Your task to perform on an android device: What's on my calendar tomorrow? Image 0: 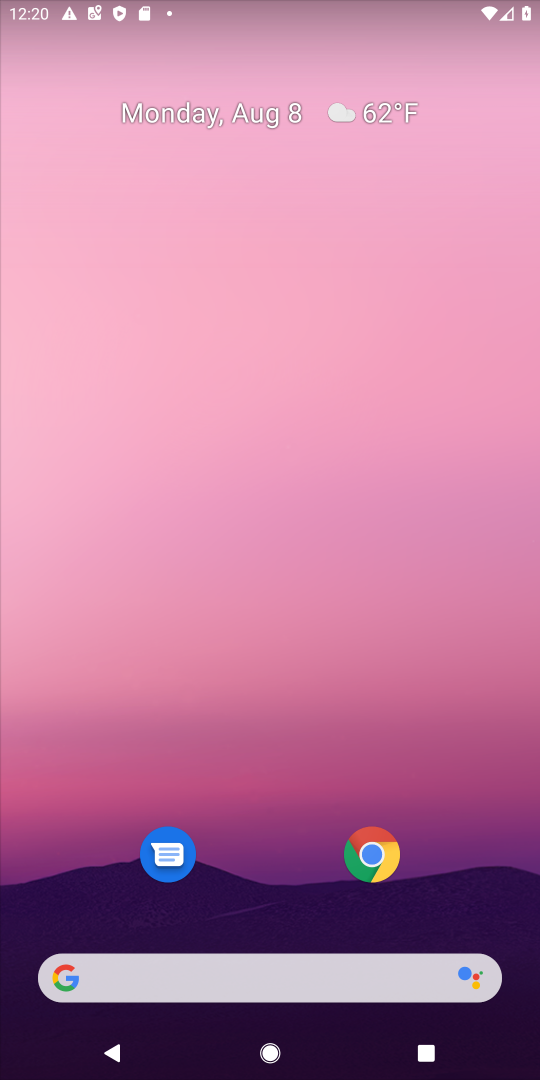
Step 0: drag from (291, 887) to (481, 32)
Your task to perform on an android device: What's on my calendar tomorrow? Image 1: 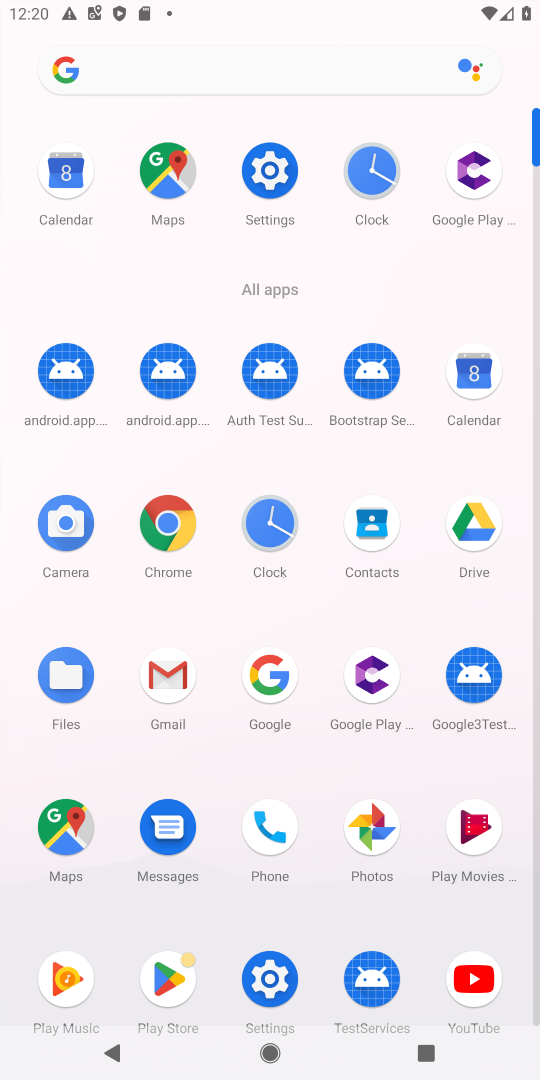
Step 1: click (469, 378)
Your task to perform on an android device: What's on my calendar tomorrow? Image 2: 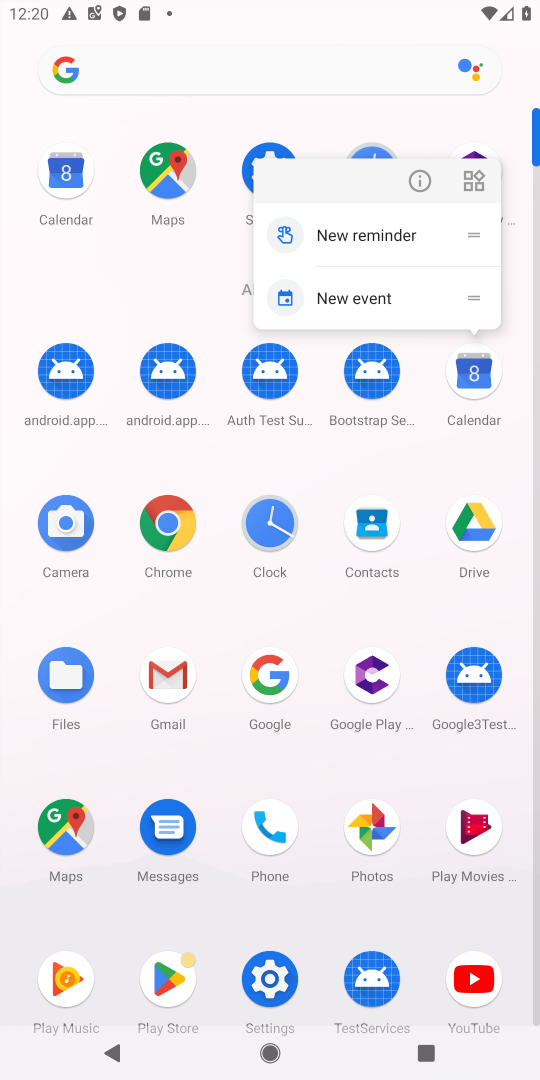
Step 2: click (469, 378)
Your task to perform on an android device: What's on my calendar tomorrow? Image 3: 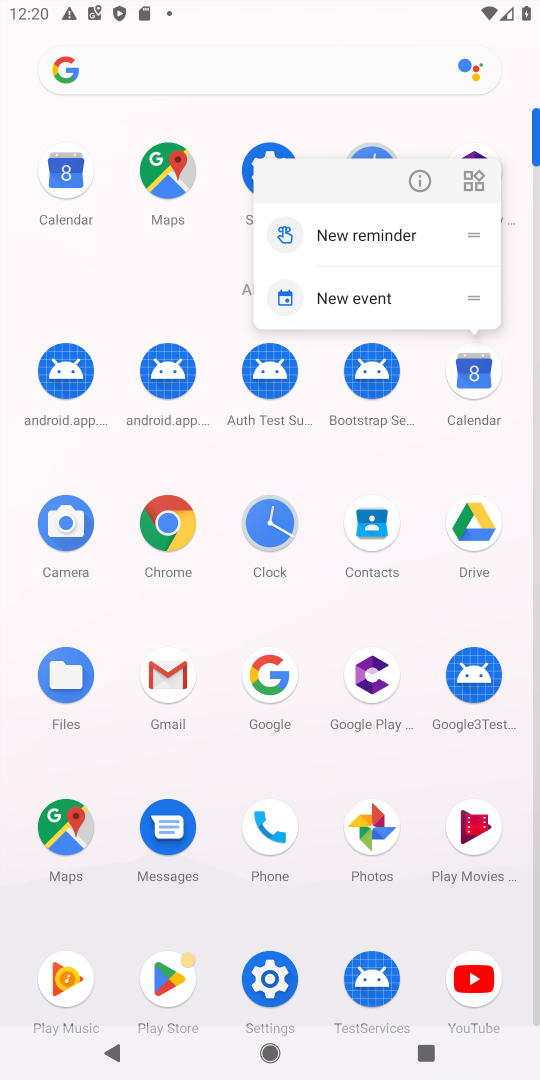
Step 3: click (482, 370)
Your task to perform on an android device: What's on my calendar tomorrow? Image 4: 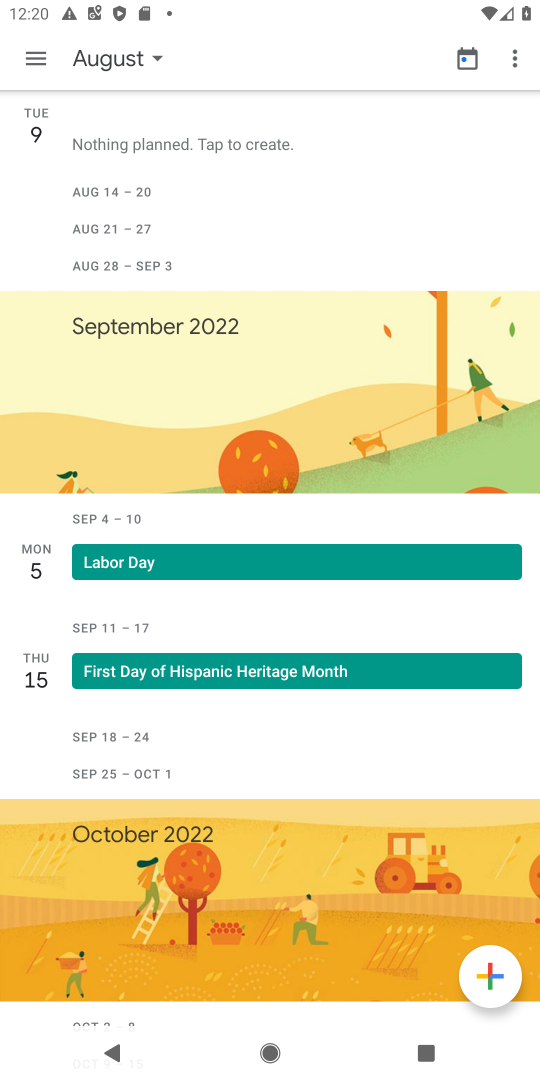
Step 4: click (138, 49)
Your task to perform on an android device: What's on my calendar tomorrow? Image 5: 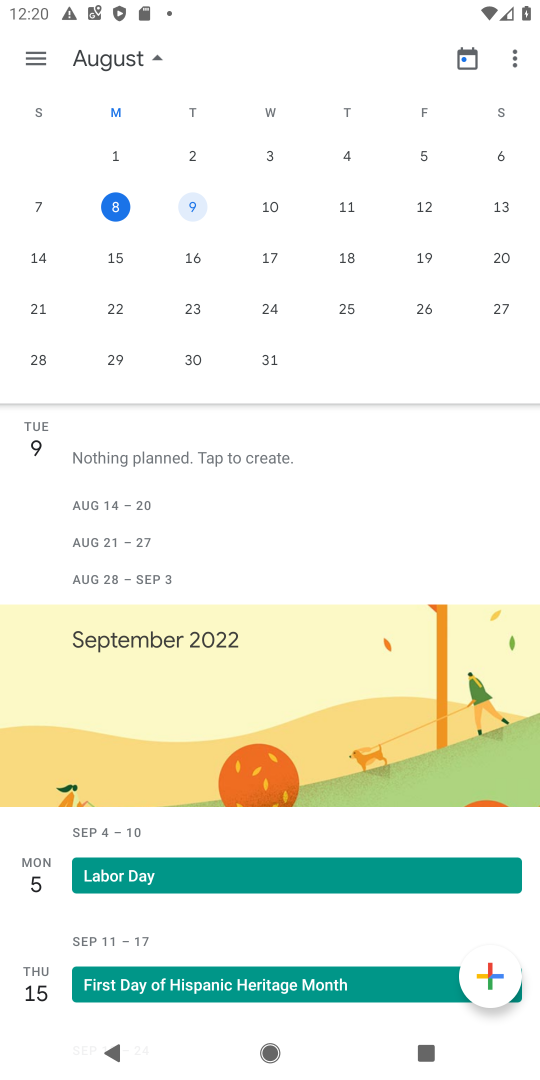
Step 5: click (195, 204)
Your task to perform on an android device: What's on my calendar tomorrow? Image 6: 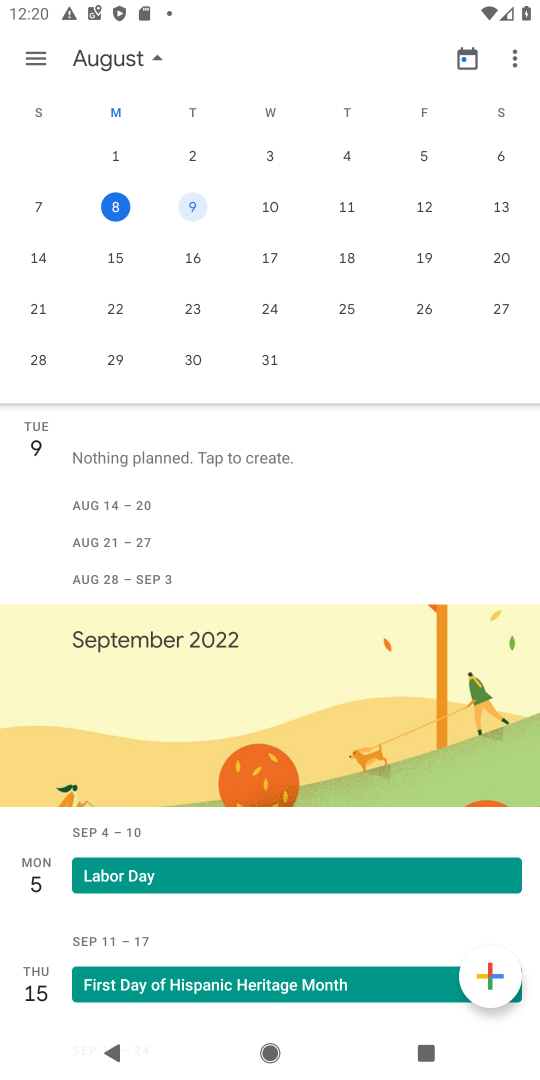
Step 6: task complete